Your task to perform on an android device: turn notification dots on Image 0: 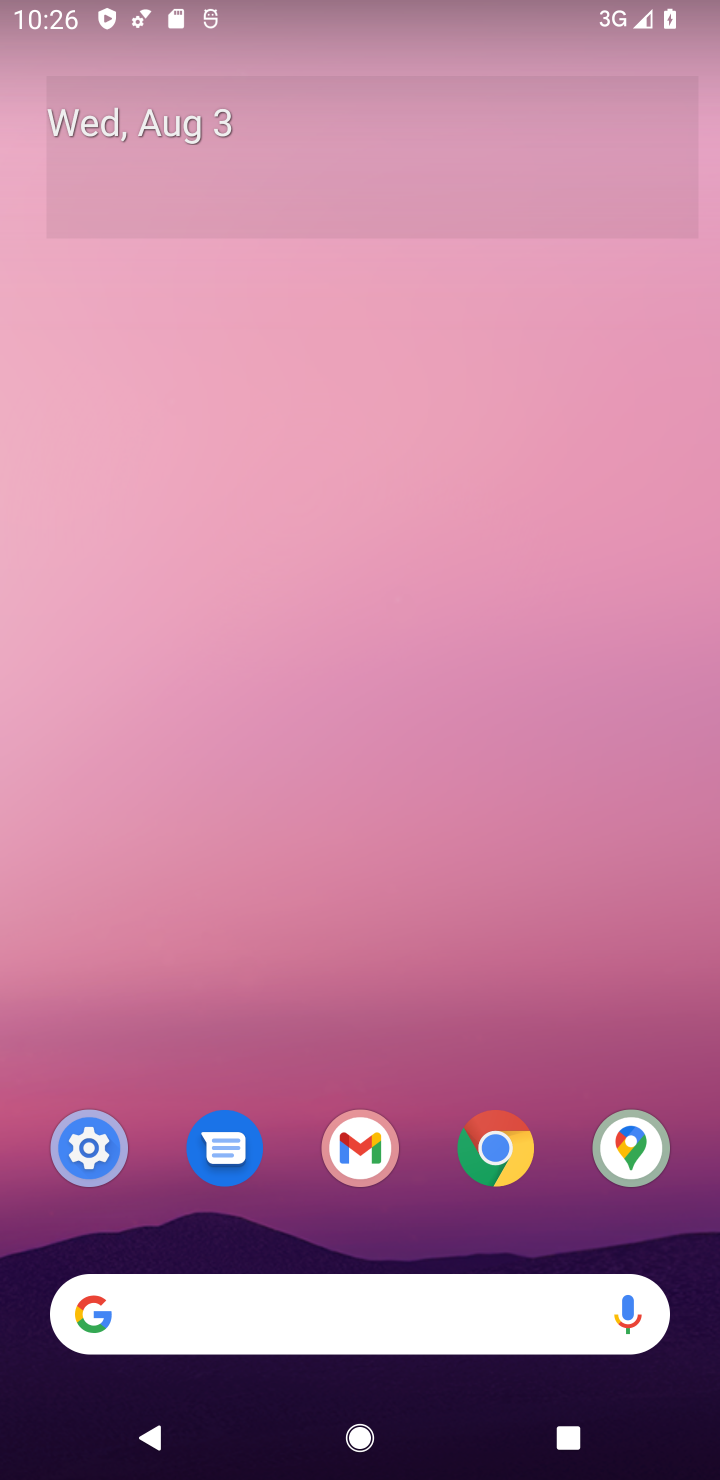
Step 0: drag from (264, 909) to (331, 382)
Your task to perform on an android device: turn notification dots on Image 1: 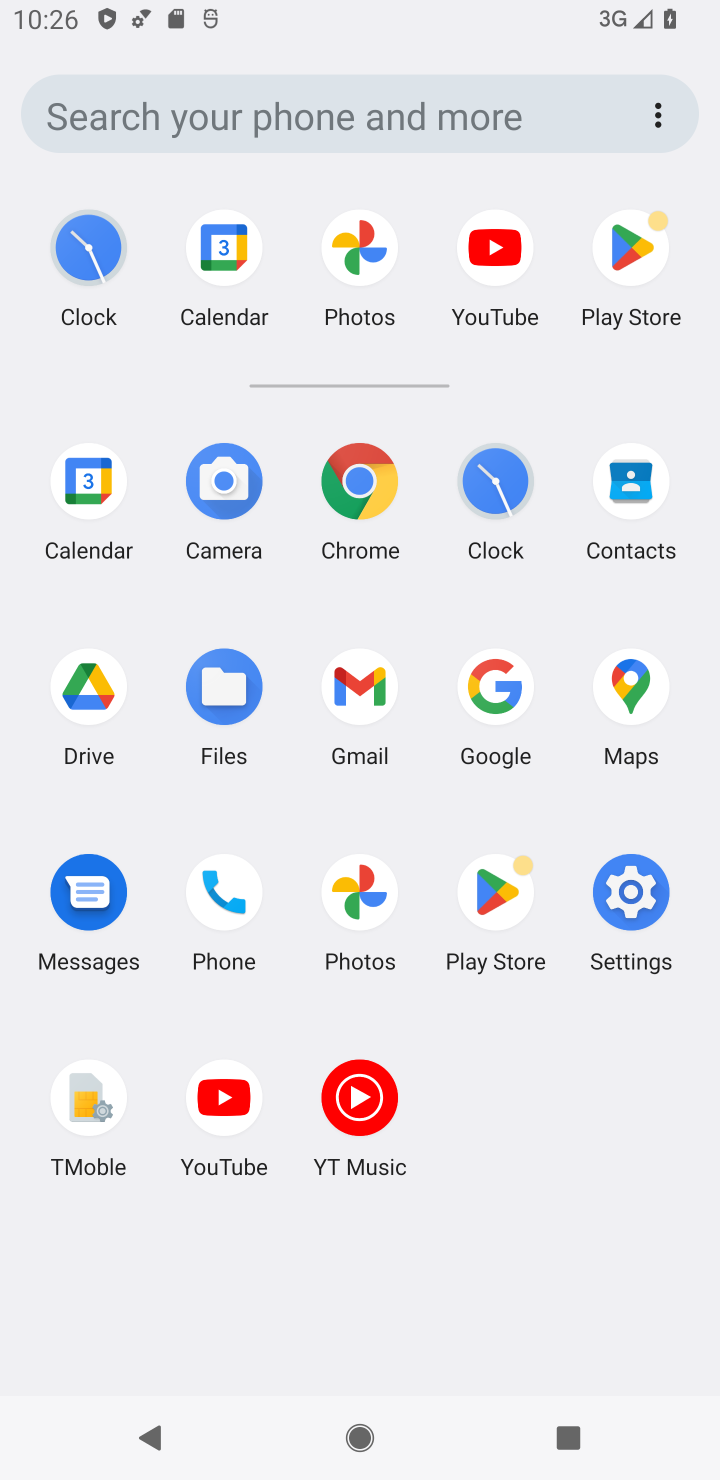
Step 1: click (634, 909)
Your task to perform on an android device: turn notification dots on Image 2: 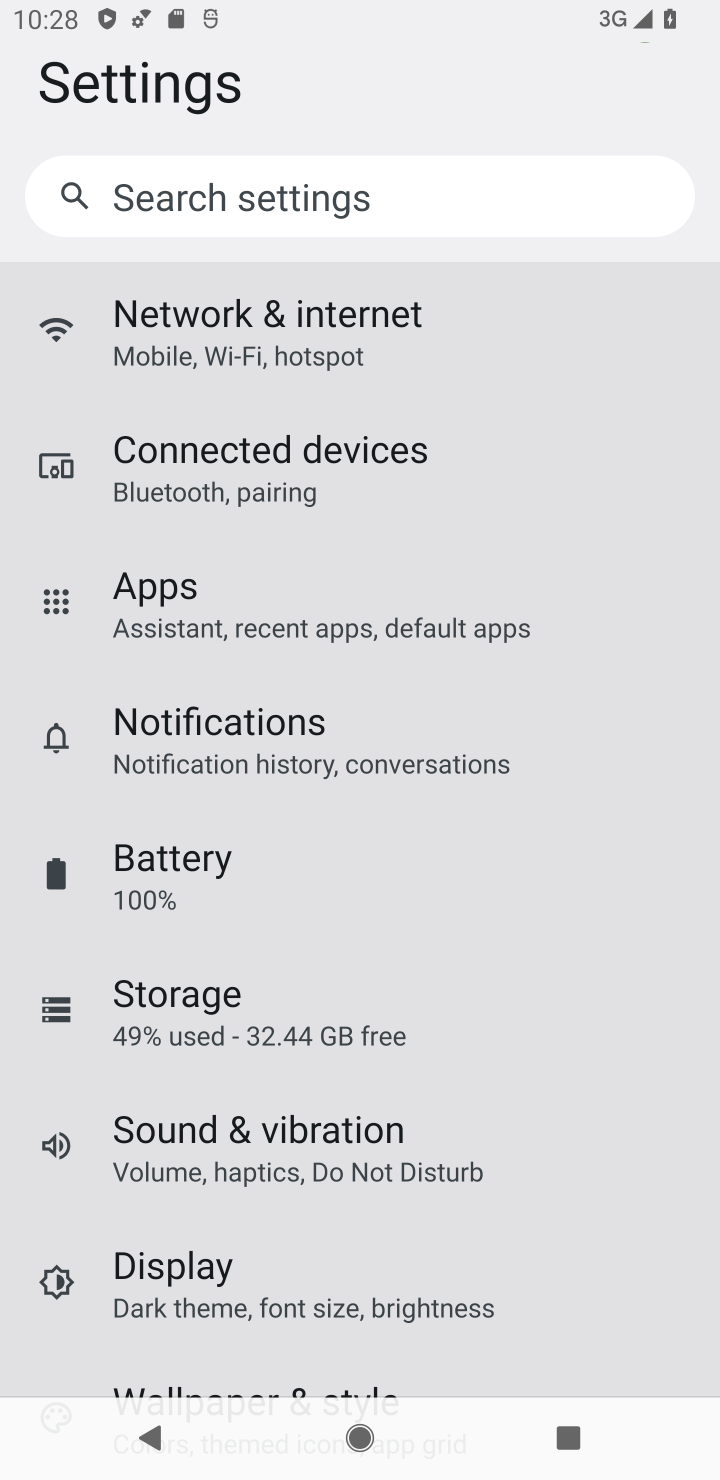
Step 2: task complete